Your task to perform on an android device: turn off improve location accuracy Image 0: 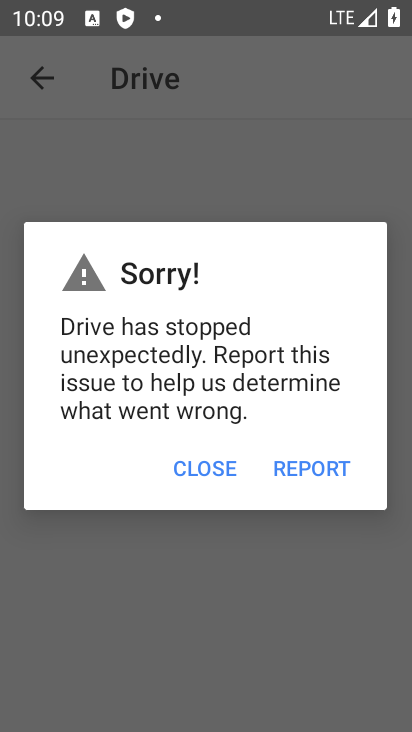
Step 0: press home button
Your task to perform on an android device: turn off improve location accuracy Image 1: 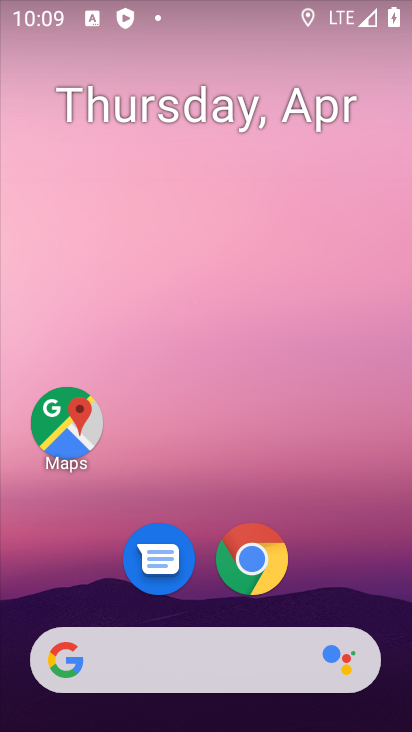
Step 1: click (53, 417)
Your task to perform on an android device: turn off improve location accuracy Image 2: 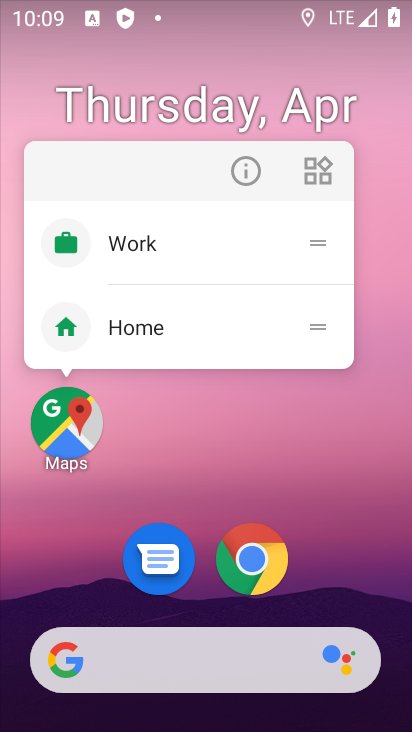
Step 2: click (53, 417)
Your task to perform on an android device: turn off improve location accuracy Image 3: 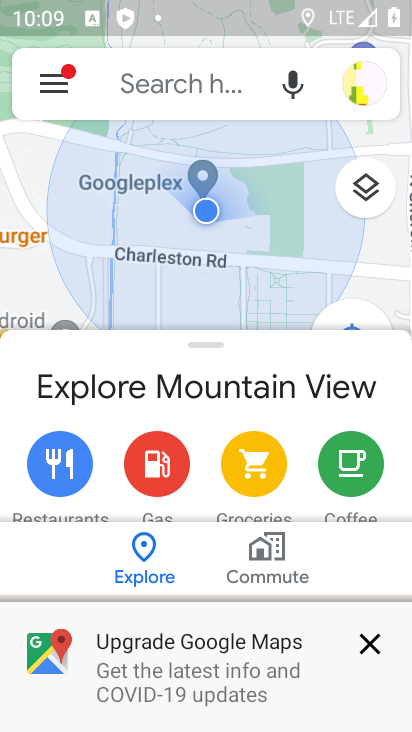
Step 3: click (54, 84)
Your task to perform on an android device: turn off improve location accuracy Image 4: 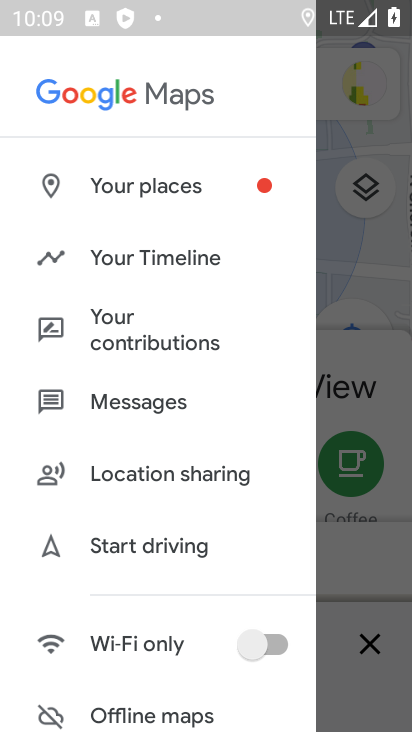
Step 4: drag from (132, 526) to (90, 65)
Your task to perform on an android device: turn off improve location accuracy Image 5: 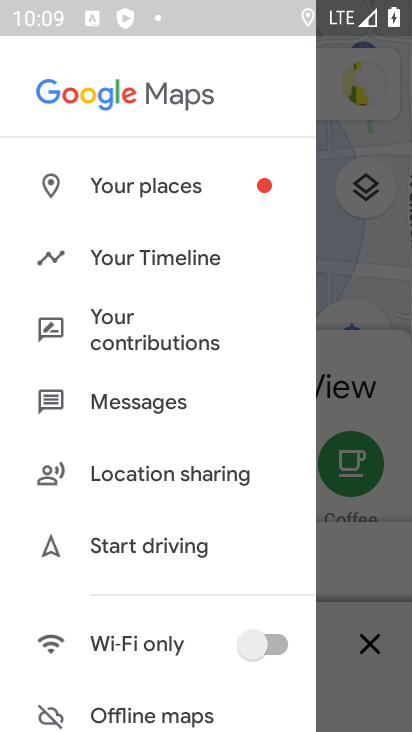
Step 5: drag from (167, 628) to (145, 94)
Your task to perform on an android device: turn off improve location accuracy Image 6: 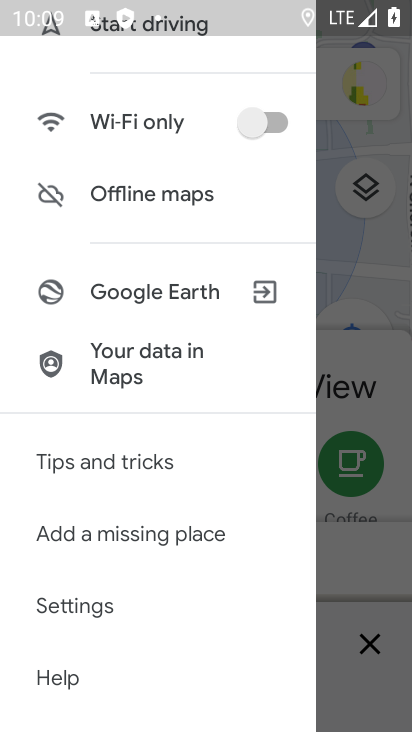
Step 6: click (89, 605)
Your task to perform on an android device: turn off improve location accuracy Image 7: 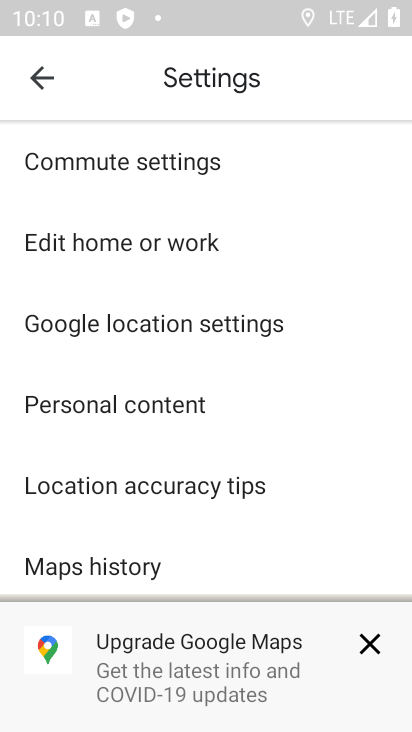
Step 7: click (252, 320)
Your task to perform on an android device: turn off improve location accuracy Image 8: 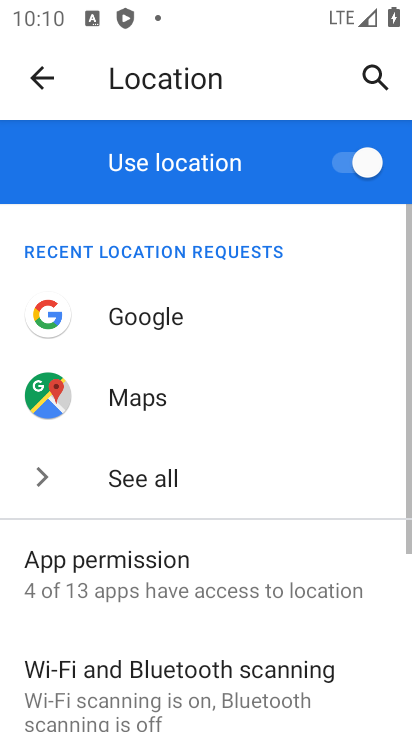
Step 8: drag from (285, 640) to (279, 279)
Your task to perform on an android device: turn off improve location accuracy Image 9: 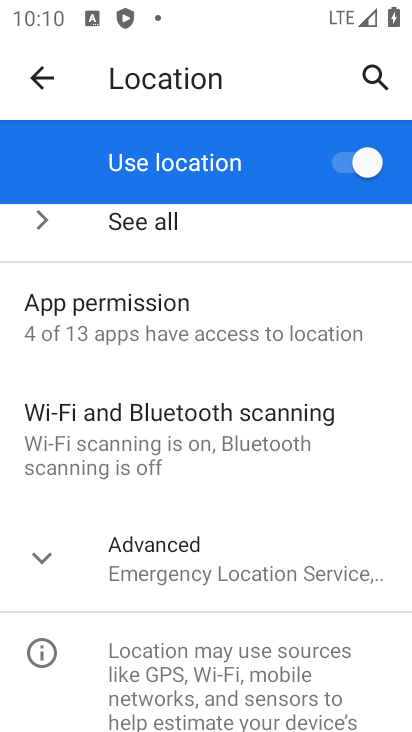
Step 9: click (287, 575)
Your task to perform on an android device: turn off improve location accuracy Image 10: 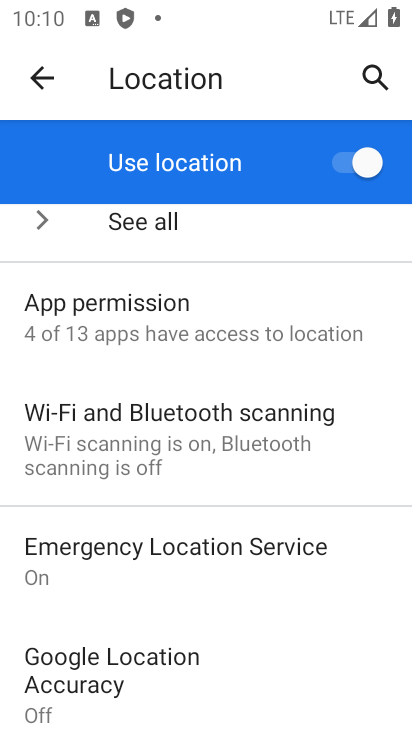
Step 10: drag from (300, 638) to (241, 245)
Your task to perform on an android device: turn off improve location accuracy Image 11: 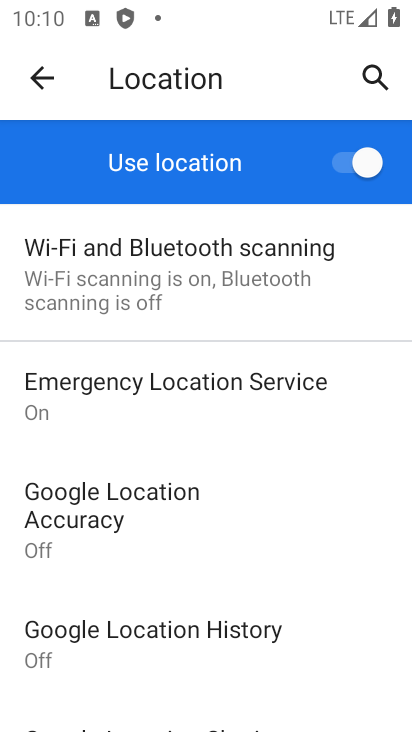
Step 11: click (93, 517)
Your task to perform on an android device: turn off improve location accuracy Image 12: 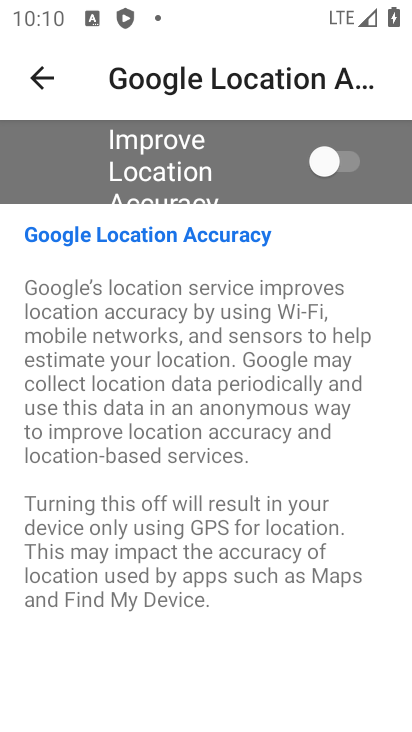
Step 12: task complete